Your task to perform on an android device: turn on priority inbox in the gmail app Image 0: 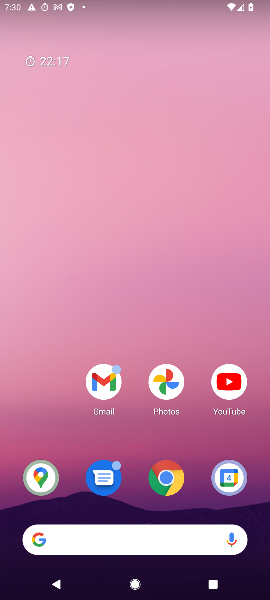
Step 0: drag from (131, 496) to (200, 268)
Your task to perform on an android device: turn on priority inbox in the gmail app Image 1: 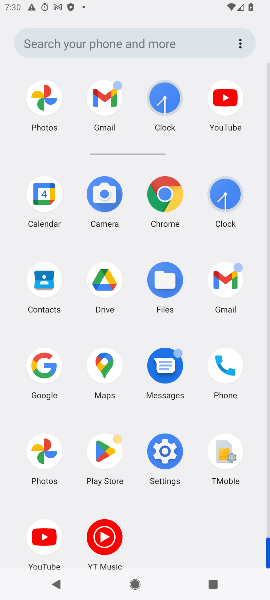
Step 1: click (220, 275)
Your task to perform on an android device: turn on priority inbox in the gmail app Image 2: 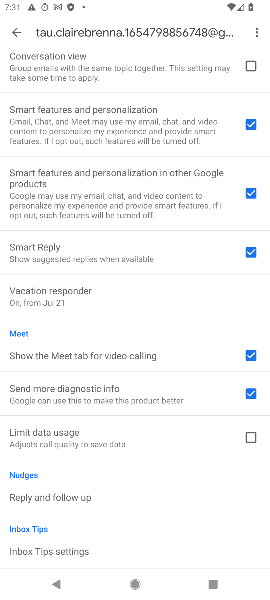
Step 2: drag from (133, 209) to (153, 591)
Your task to perform on an android device: turn on priority inbox in the gmail app Image 3: 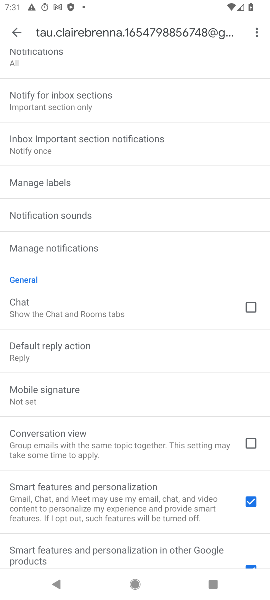
Step 3: drag from (84, 231) to (172, 599)
Your task to perform on an android device: turn on priority inbox in the gmail app Image 4: 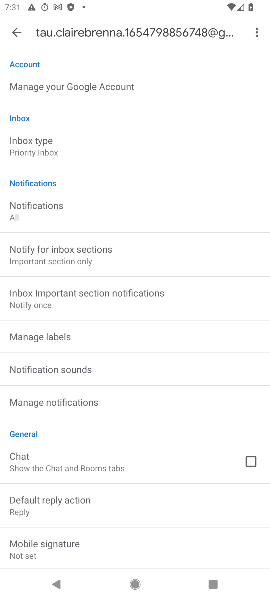
Step 4: click (73, 143)
Your task to perform on an android device: turn on priority inbox in the gmail app Image 5: 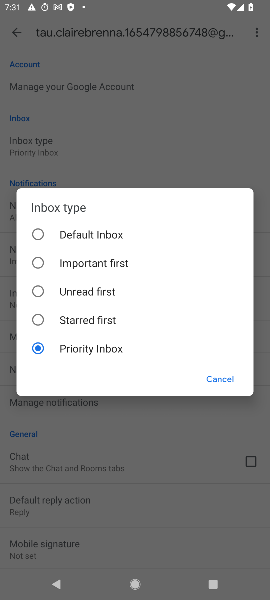
Step 5: task complete